Your task to perform on an android device: refresh tabs in the chrome app Image 0: 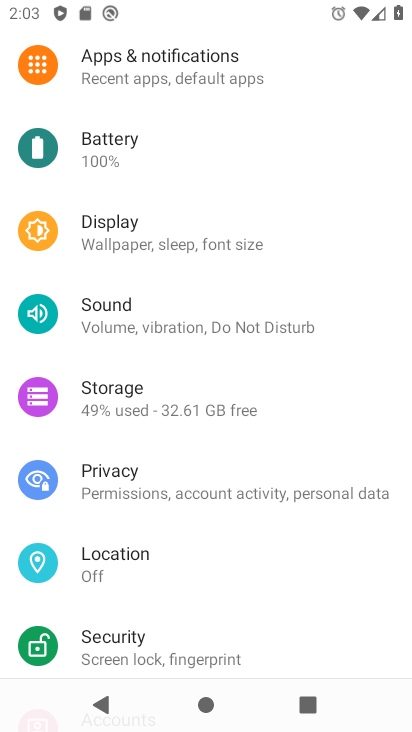
Step 0: press home button
Your task to perform on an android device: refresh tabs in the chrome app Image 1: 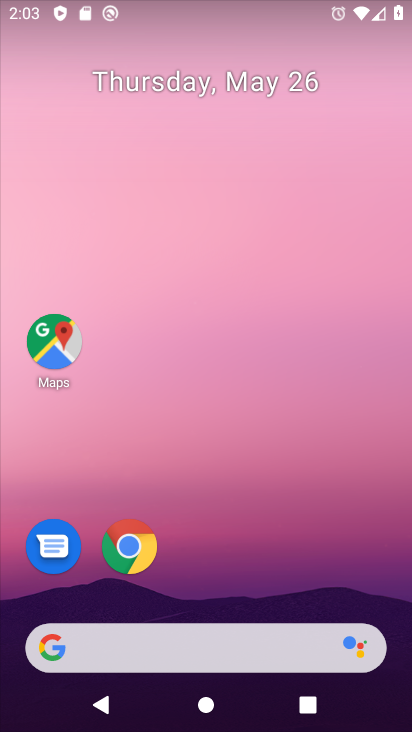
Step 1: click (127, 542)
Your task to perform on an android device: refresh tabs in the chrome app Image 2: 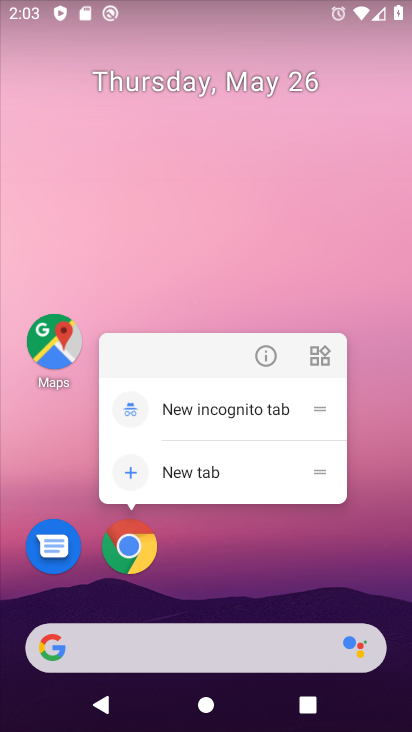
Step 2: click (128, 551)
Your task to perform on an android device: refresh tabs in the chrome app Image 3: 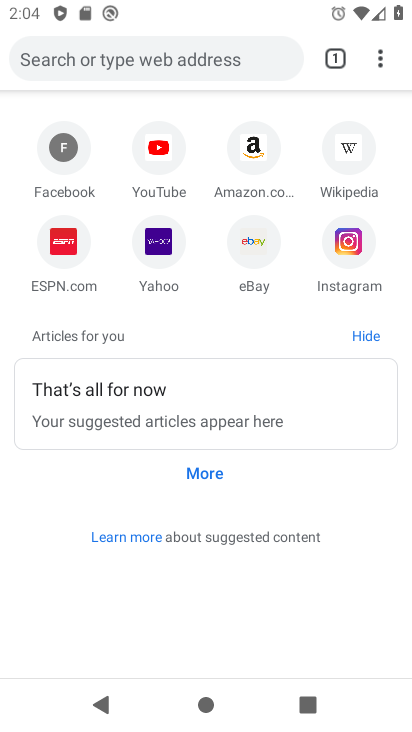
Step 3: click (368, 68)
Your task to perform on an android device: refresh tabs in the chrome app Image 4: 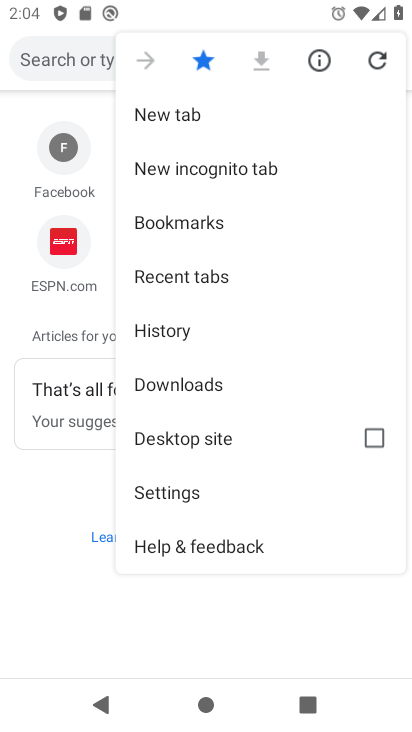
Step 4: click (223, 278)
Your task to perform on an android device: refresh tabs in the chrome app Image 5: 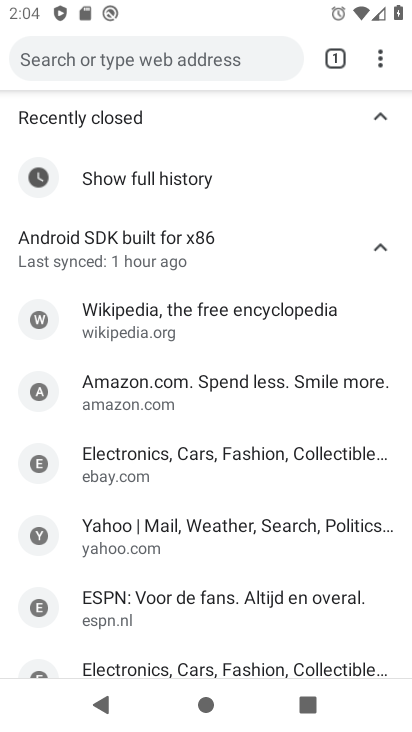
Step 5: task complete